Your task to perform on an android device: turn off priority inbox in the gmail app Image 0: 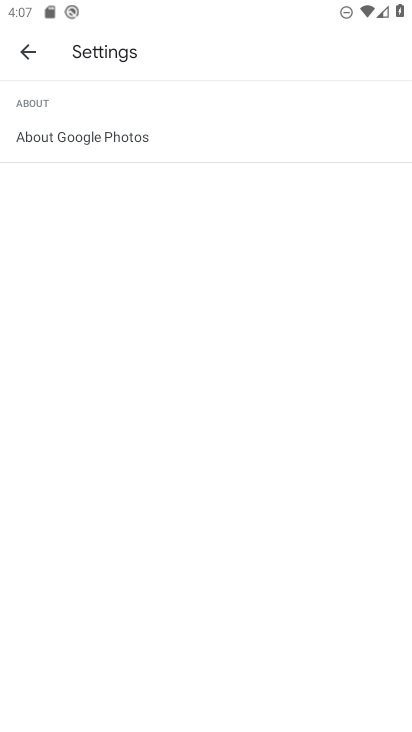
Step 0: press home button
Your task to perform on an android device: turn off priority inbox in the gmail app Image 1: 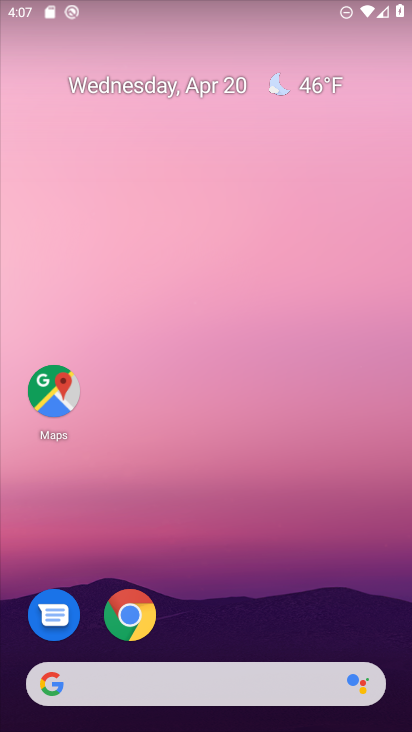
Step 1: drag from (207, 560) to (263, 169)
Your task to perform on an android device: turn off priority inbox in the gmail app Image 2: 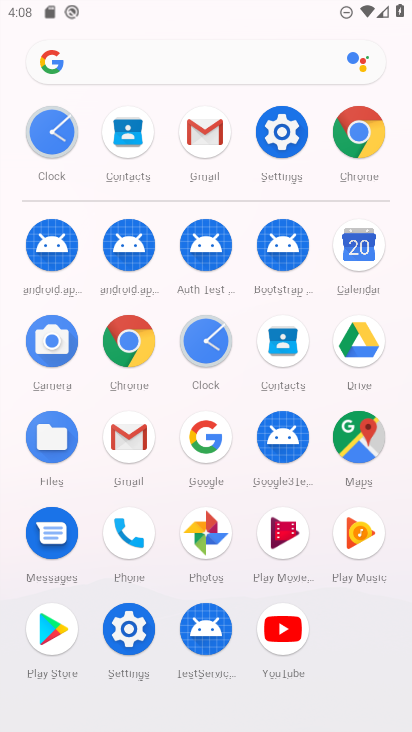
Step 2: click (211, 143)
Your task to perform on an android device: turn off priority inbox in the gmail app Image 3: 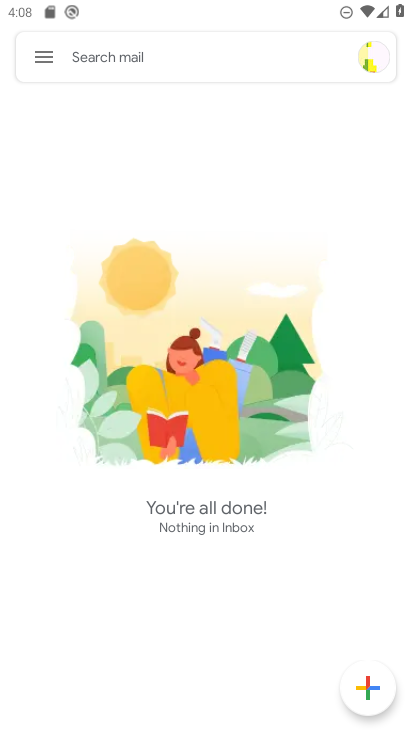
Step 3: click (35, 73)
Your task to perform on an android device: turn off priority inbox in the gmail app Image 4: 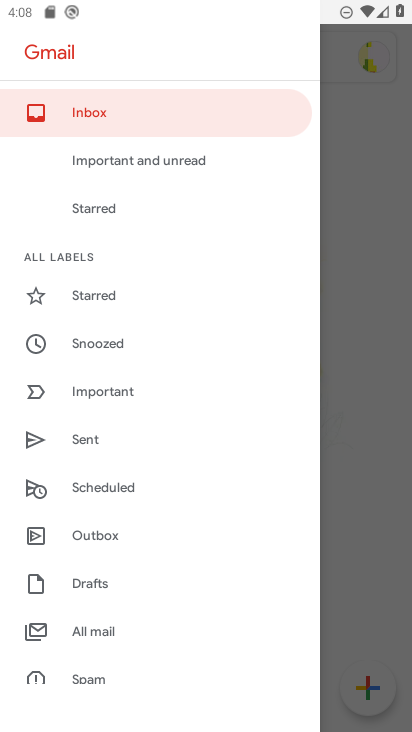
Step 4: drag from (104, 647) to (216, 224)
Your task to perform on an android device: turn off priority inbox in the gmail app Image 5: 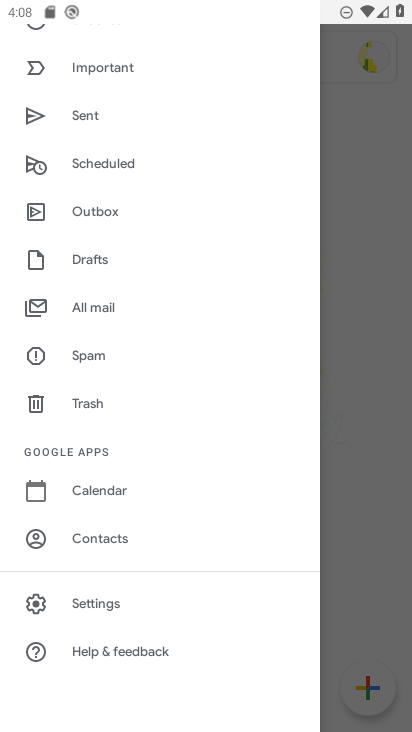
Step 5: click (92, 599)
Your task to perform on an android device: turn off priority inbox in the gmail app Image 6: 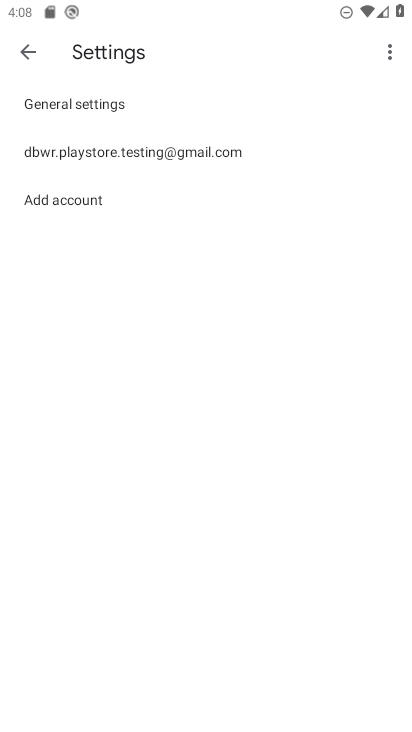
Step 6: click (118, 143)
Your task to perform on an android device: turn off priority inbox in the gmail app Image 7: 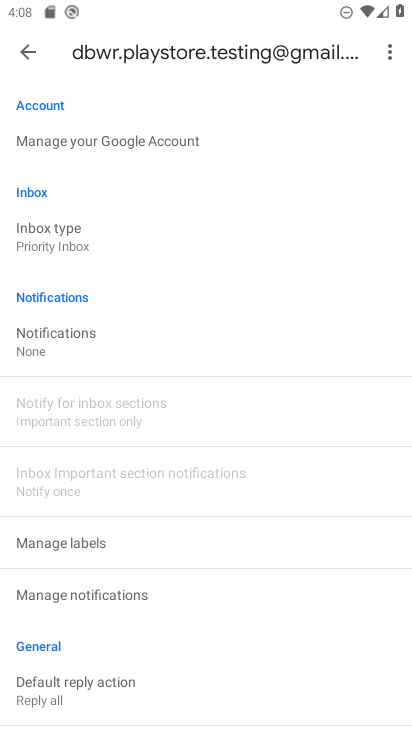
Step 7: drag from (111, 568) to (133, 354)
Your task to perform on an android device: turn off priority inbox in the gmail app Image 8: 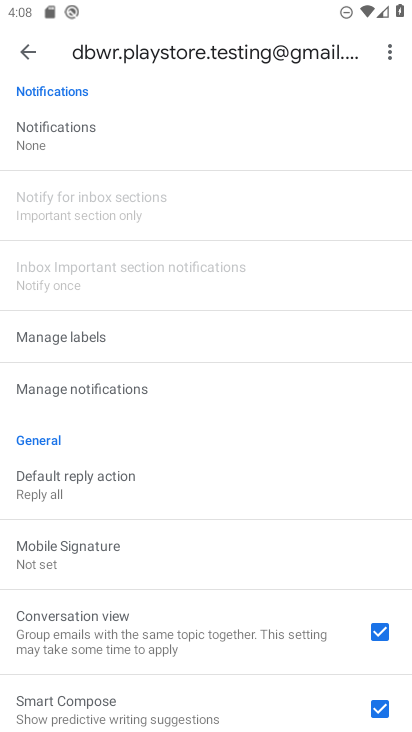
Step 8: drag from (71, 245) to (67, 535)
Your task to perform on an android device: turn off priority inbox in the gmail app Image 9: 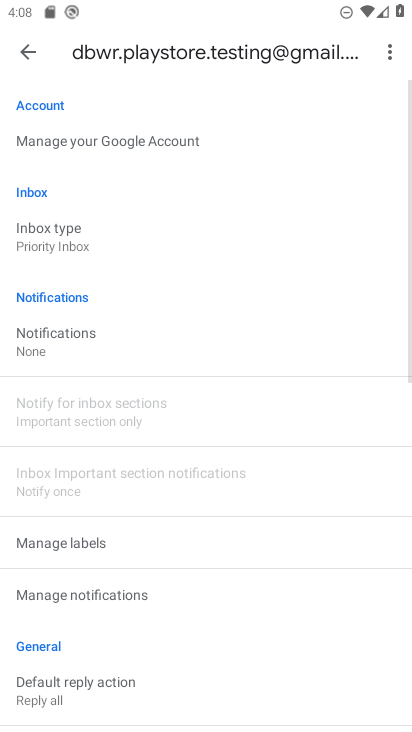
Step 9: click (58, 243)
Your task to perform on an android device: turn off priority inbox in the gmail app Image 10: 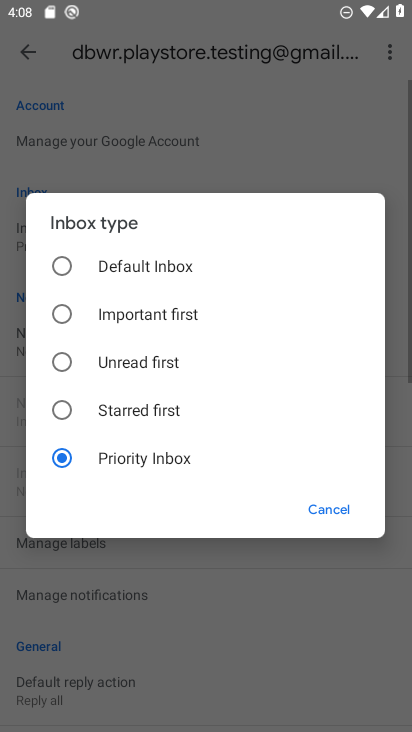
Step 10: click (84, 274)
Your task to perform on an android device: turn off priority inbox in the gmail app Image 11: 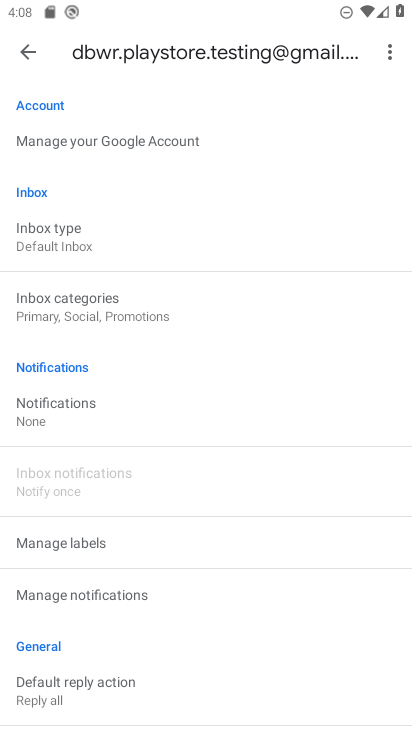
Step 11: task complete